Your task to perform on an android device: turn off picture-in-picture Image 0: 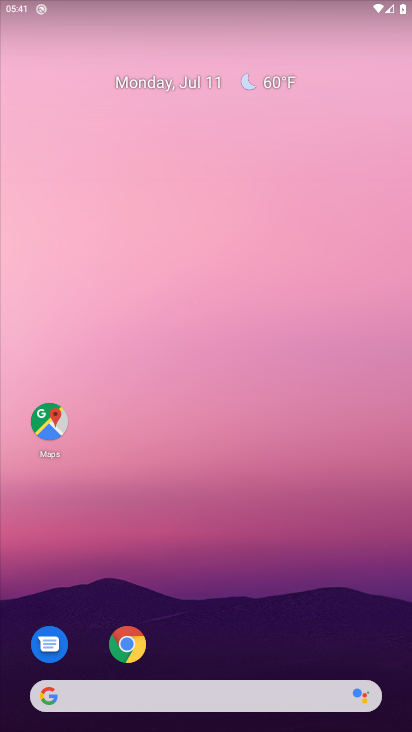
Step 0: click (128, 647)
Your task to perform on an android device: turn off picture-in-picture Image 1: 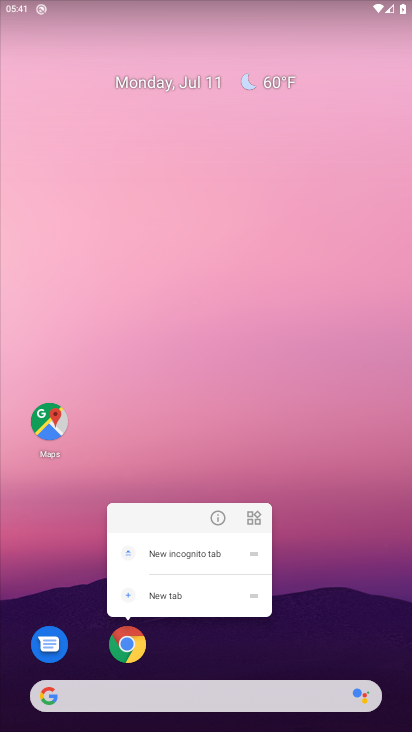
Step 1: click (216, 513)
Your task to perform on an android device: turn off picture-in-picture Image 2: 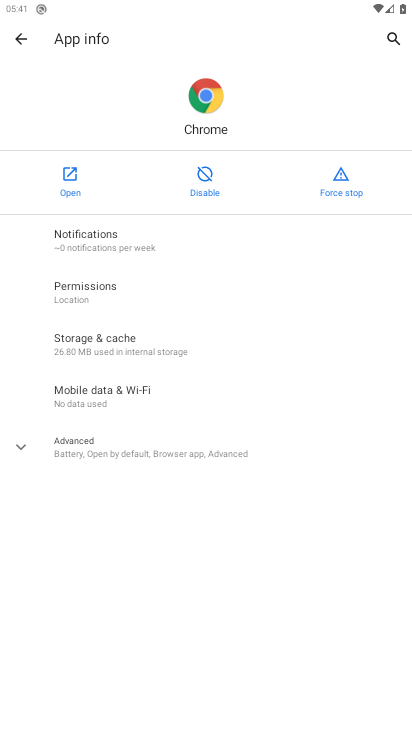
Step 2: click (109, 449)
Your task to perform on an android device: turn off picture-in-picture Image 3: 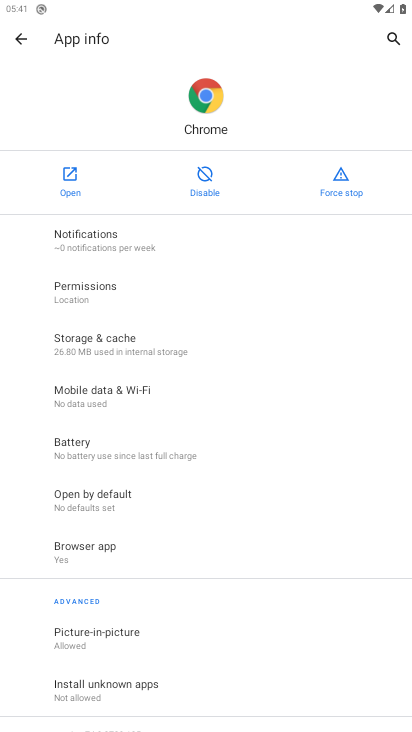
Step 3: drag from (157, 707) to (174, 334)
Your task to perform on an android device: turn off picture-in-picture Image 4: 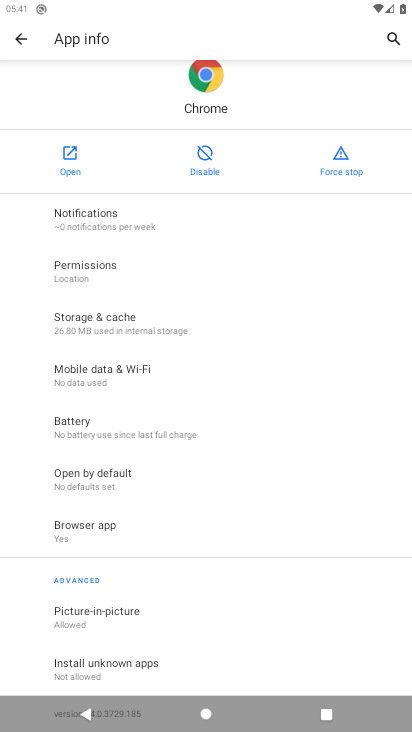
Step 4: click (110, 611)
Your task to perform on an android device: turn off picture-in-picture Image 5: 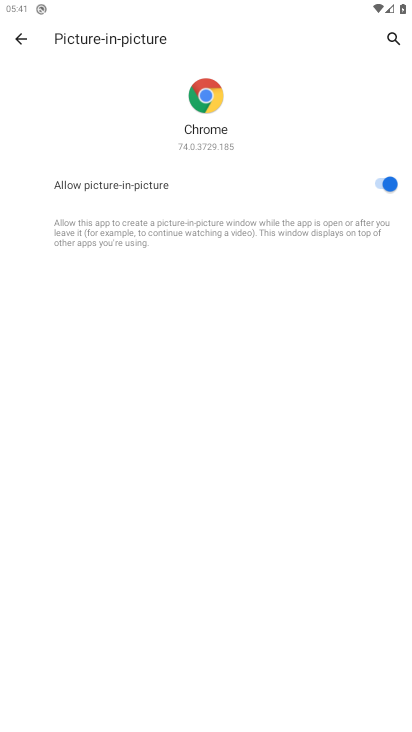
Step 5: click (377, 185)
Your task to perform on an android device: turn off picture-in-picture Image 6: 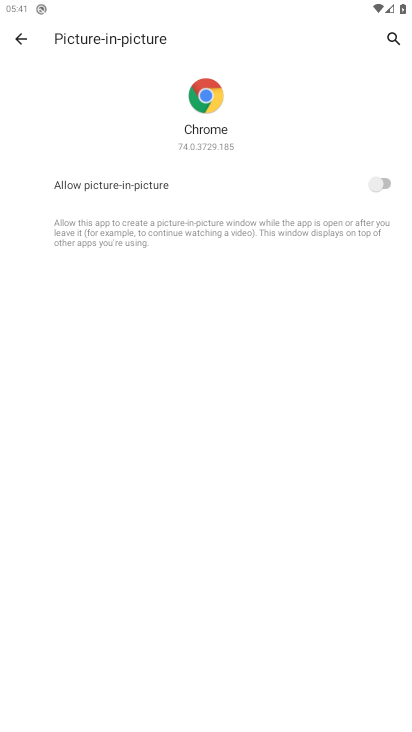
Step 6: task complete